Your task to perform on an android device: turn on bluetooth scan Image 0: 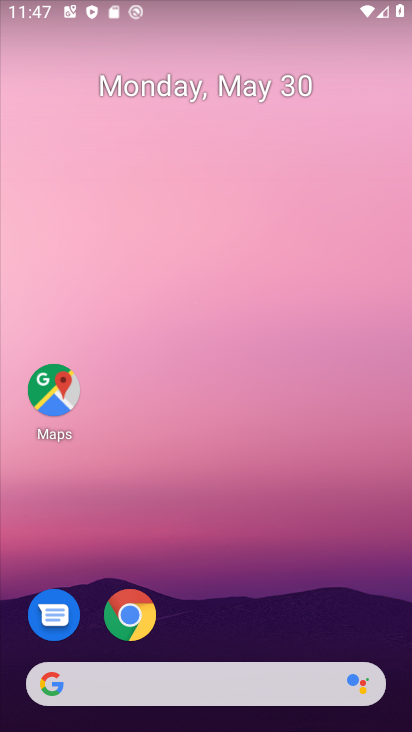
Step 0: drag from (370, 607) to (367, 190)
Your task to perform on an android device: turn on bluetooth scan Image 1: 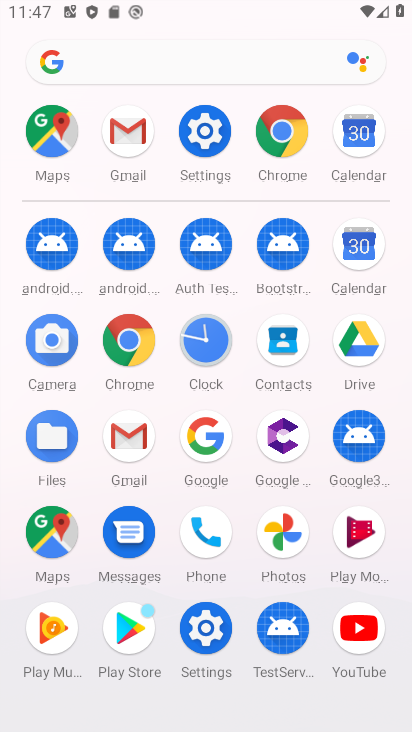
Step 1: click (219, 148)
Your task to perform on an android device: turn on bluetooth scan Image 2: 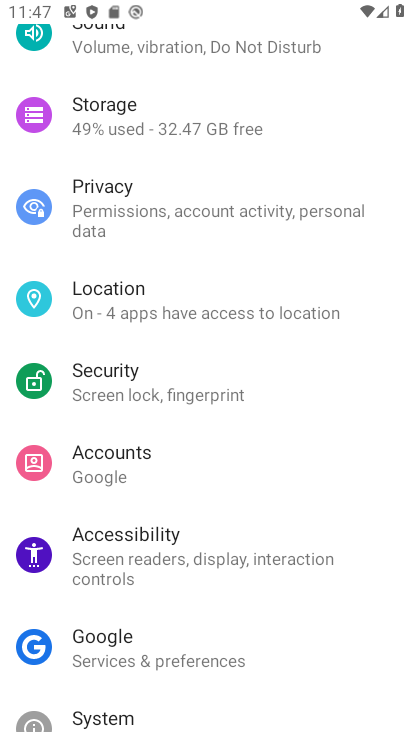
Step 2: drag from (331, 512) to (324, 363)
Your task to perform on an android device: turn on bluetooth scan Image 3: 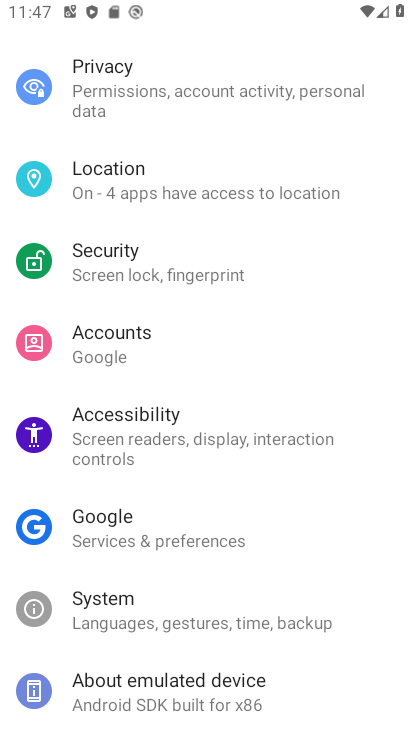
Step 3: drag from (359, 617) to (360, 337)
Your task to perform on an android device: turn on bluetooth scan Image 4: 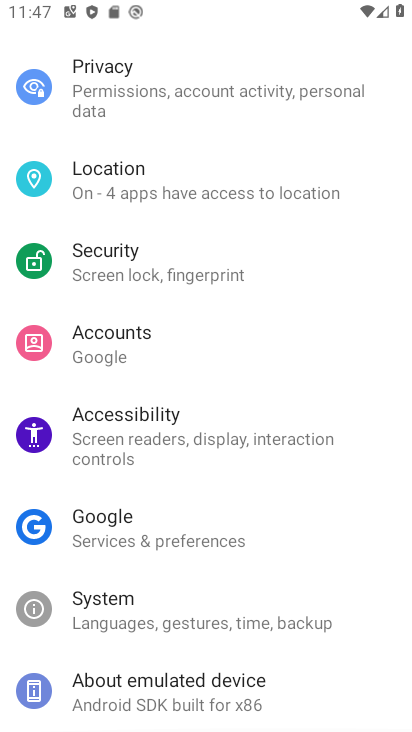
Step 4: drag from (360, 307) to (360, 400)
Your task to perform on an android device: turn on bluetooth scan Image 5: 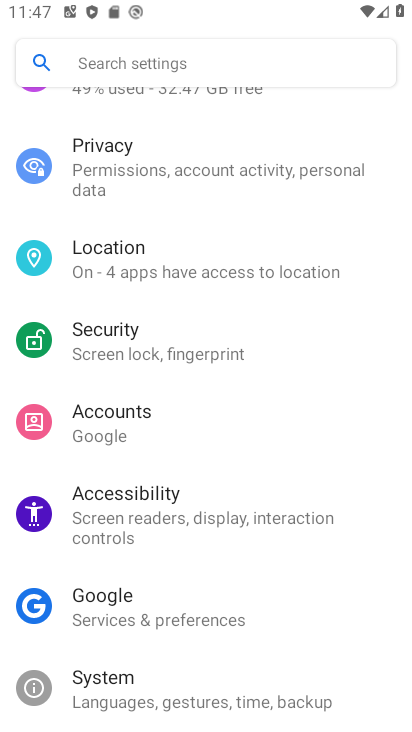
Step 5: drag from (364, 325) to (355, 428)
Your task to perform on an android device: turn on bluetooth scan Image 6: 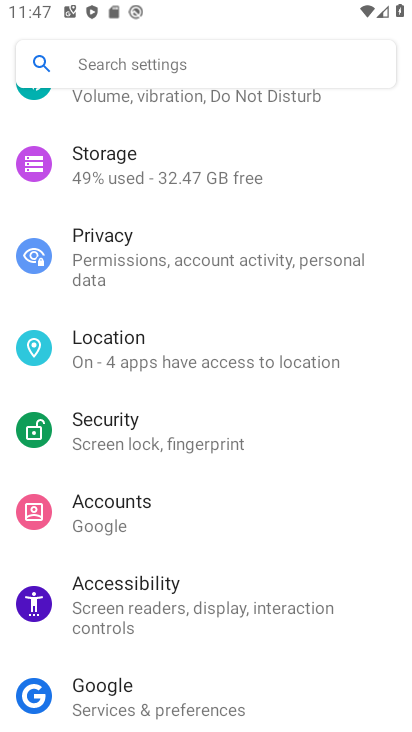
Step 6: drag from (365, 330) to (369, 481)
Your task to perform on an android device: turn on bluetooth scan Image 7: 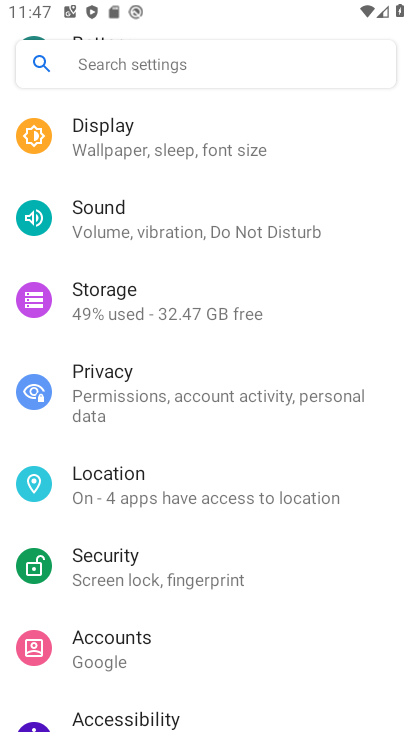
Step 7: drag from (363, 286) to (372, 486)
Your task to perform on an android device: turn on bluetooth scan Image 8: 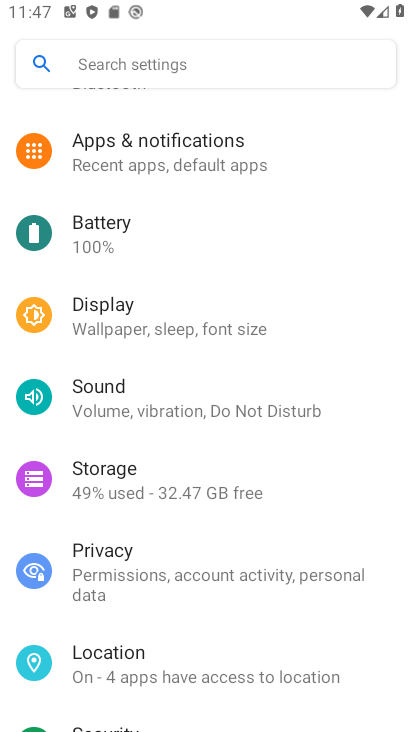
Step 8: click (290, 677)
Your task to perform on an android device: turn on bluetooth scan Image 9: 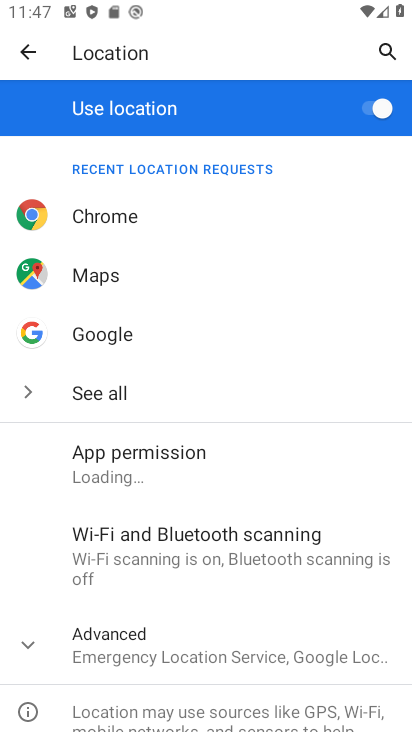
Step 9: drag from (323, 600) to (319, 431)
Your task to perform on an android device: turn on bluetooth scan Image 10: 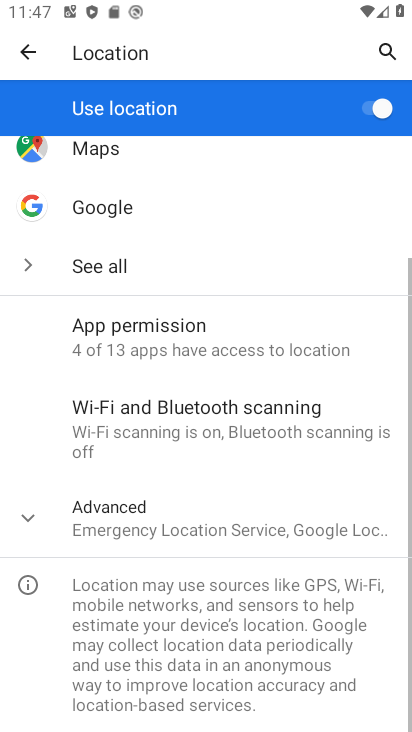
Step 10: click (323, 398)
Your task to perform on an android device: turn on bluetooth scan Image 11: 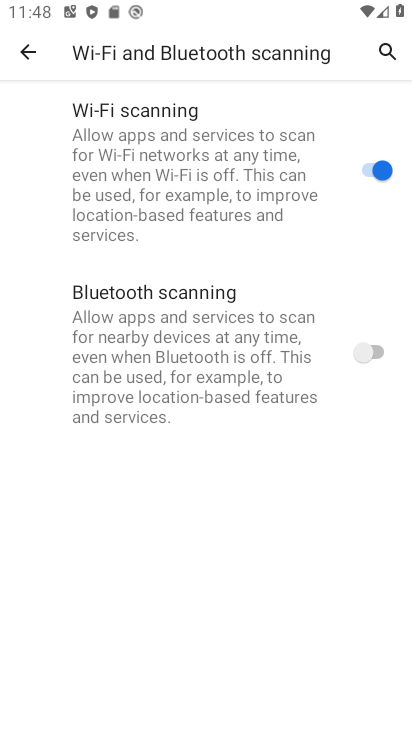
Step 11: click (356, 361)
Your task to perform on an android device: turn on bluetooth scan Image 12: 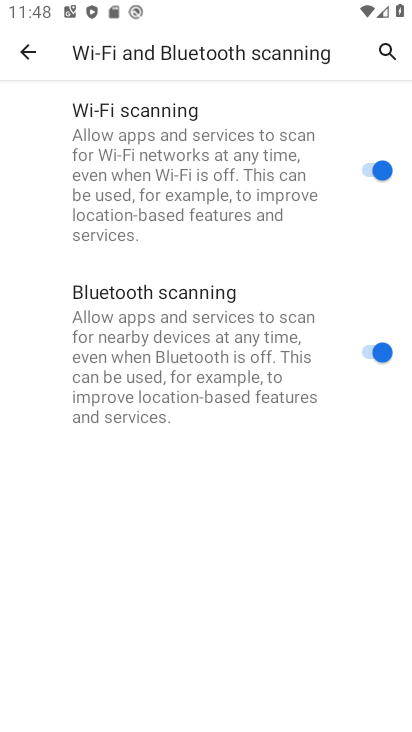
Step 12: task complete